Your task to perform on an android device: What's the news in Paraguay? Image 0: 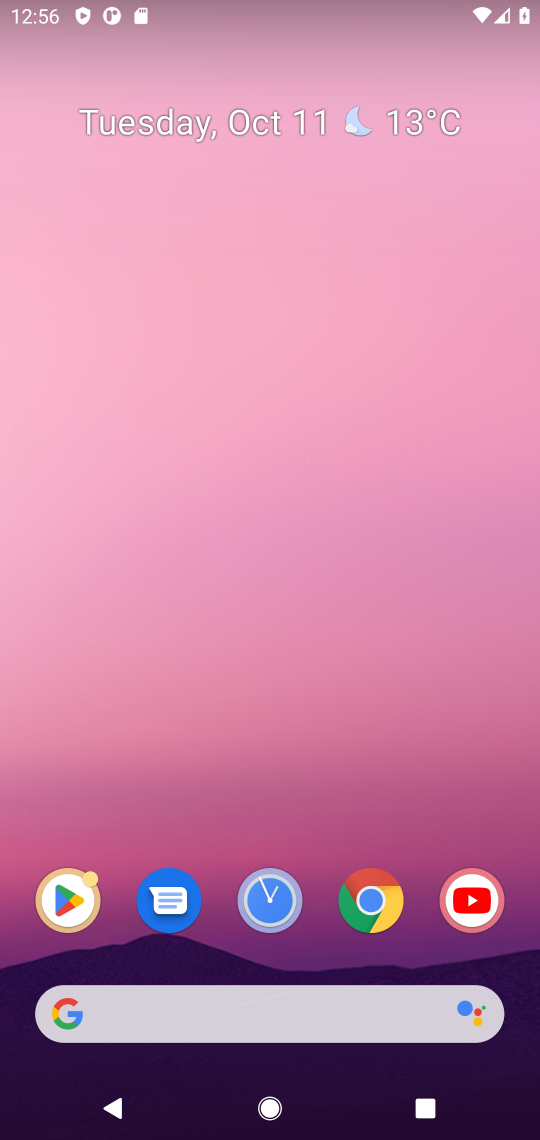
Step 0: click (366, 892)
Your task to perform on an android device: What's the news in Paraguay? Image 1: 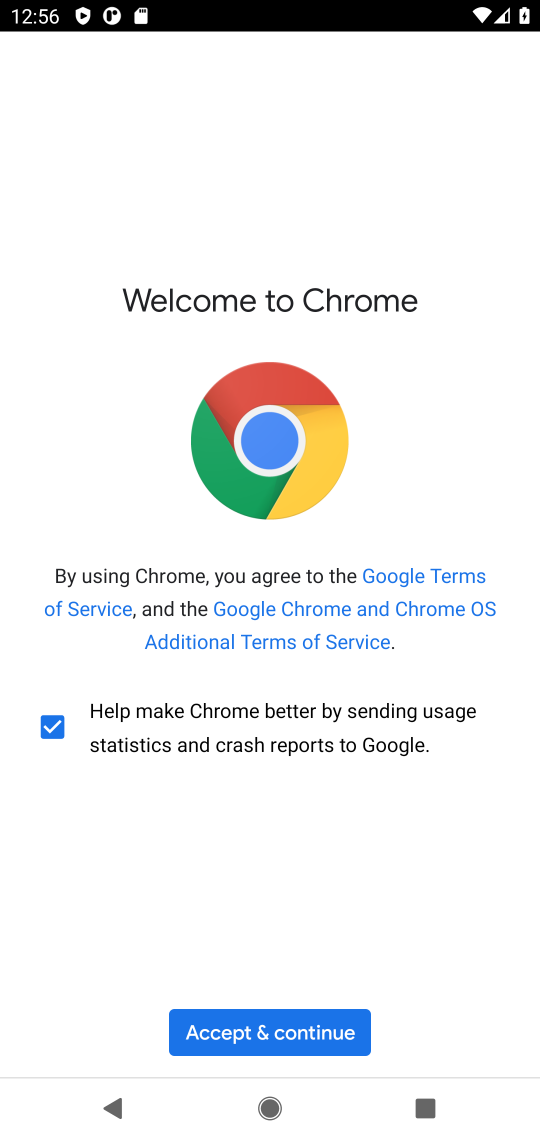
Step 1: click (323, 1029)
Your task to perform on an android device: What's the news in Paraguay? Image 2: 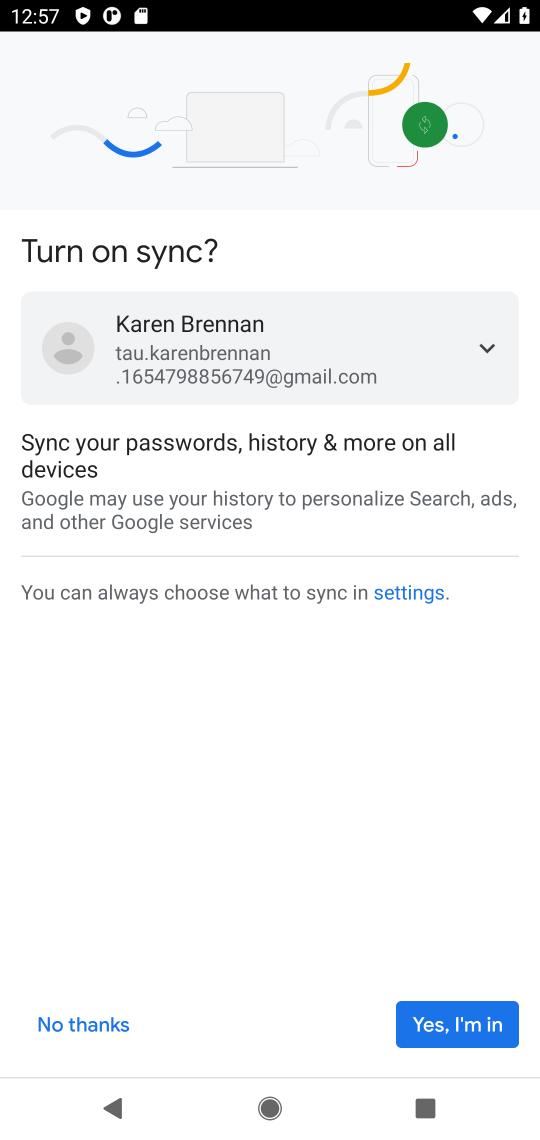
Step 2: click (503, 1026)
Your task to perform on an android device: What's the news in Paraguay? Image 3: 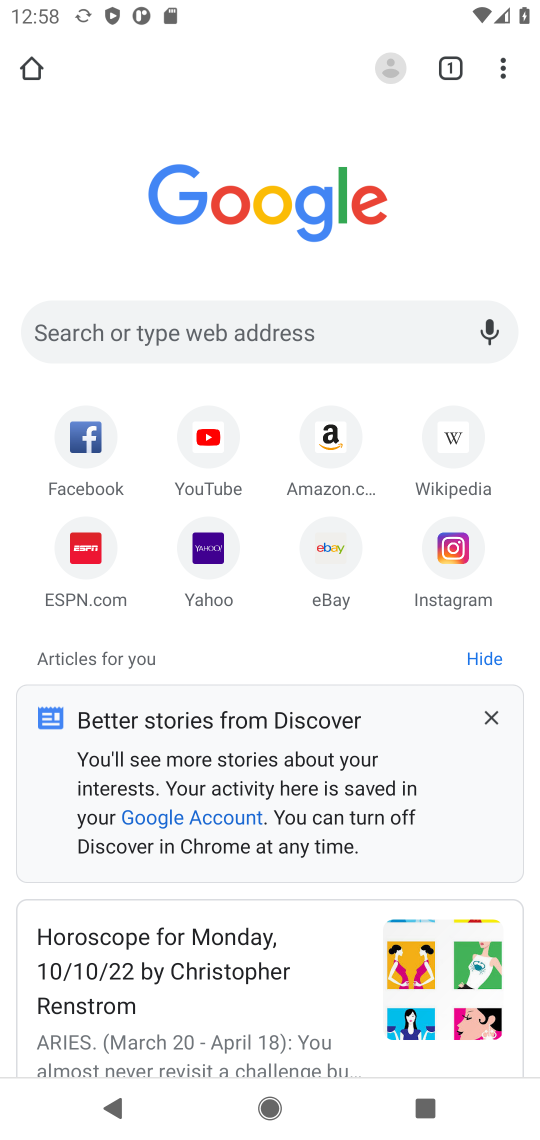
Step 3: click (244, 333)
Your task to perform on an android device: What's the news in Paraguay? Image 4: 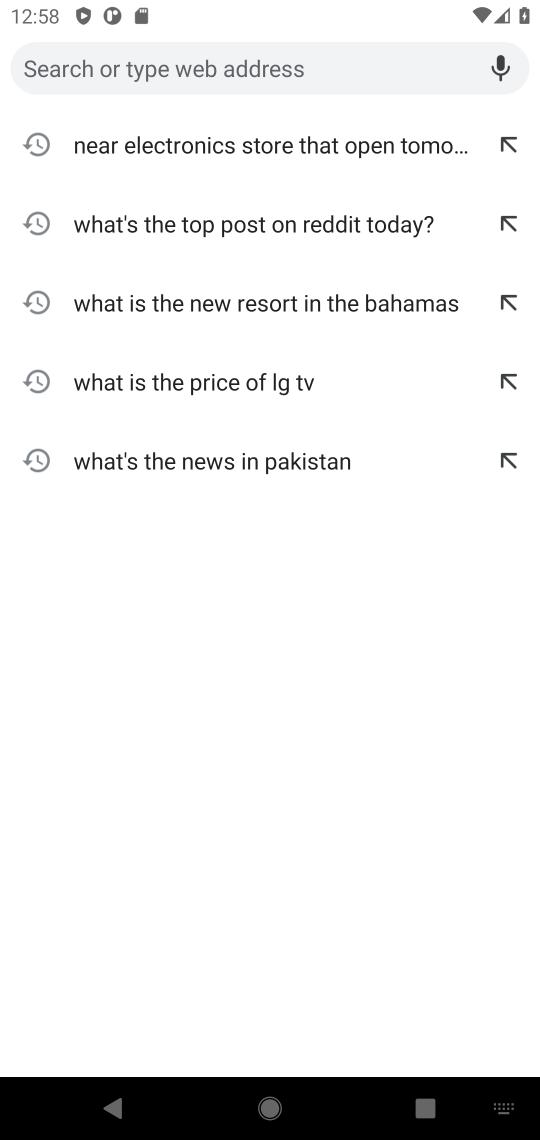
Step 4: click (274, 74)
Your task to perform on an android device: What's the news in Paraguay? Image 5: 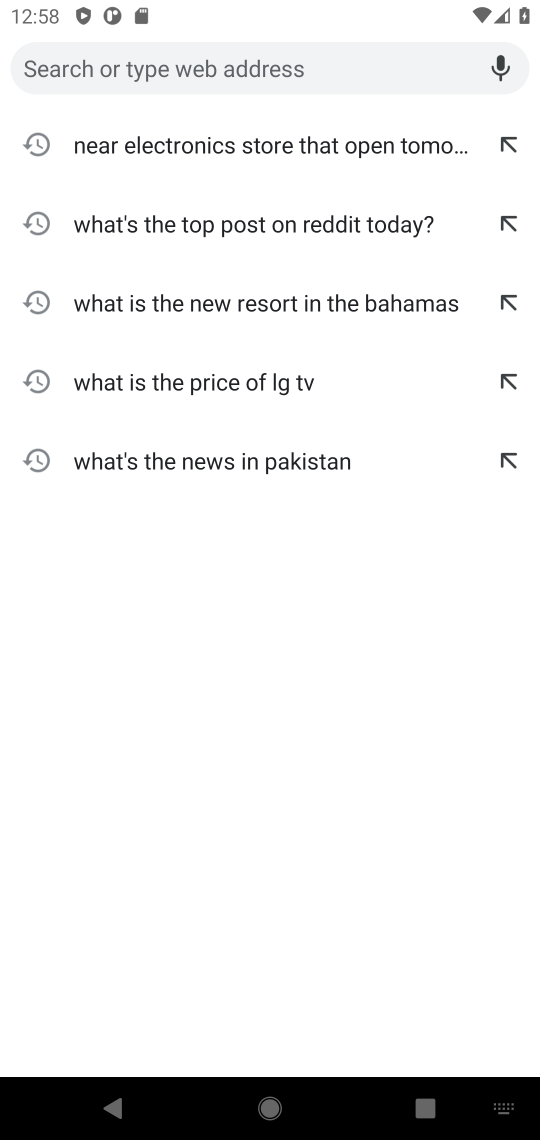
Step 5: type " news in Paraguay"
Your task to perform on an android device: What's the news in Paraguay? Image 6: 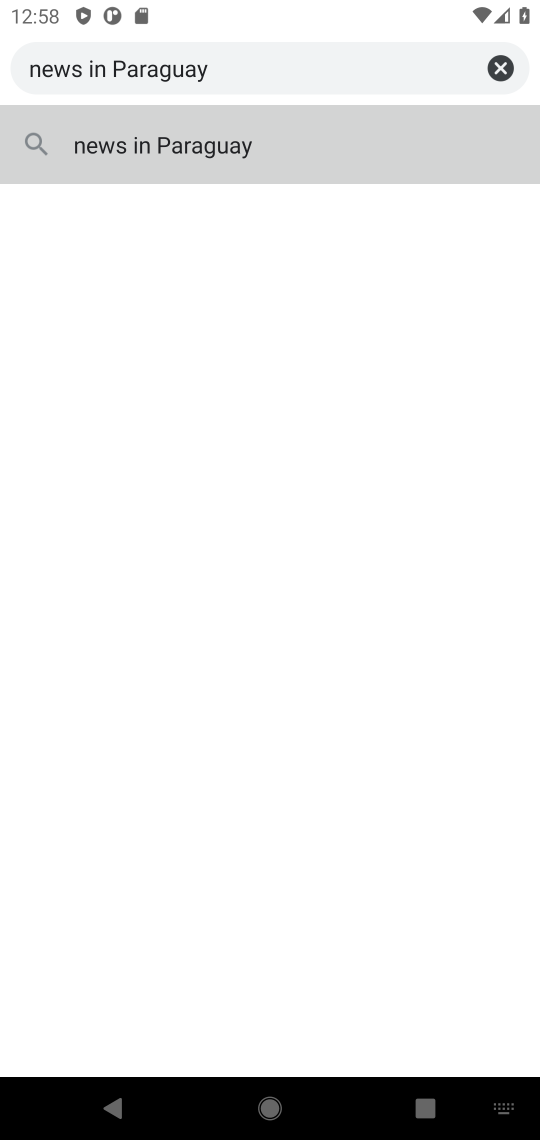
Step 6: click (259, 156)
Your task to perform on an android device: What's the news in Paraguay? Image 7: 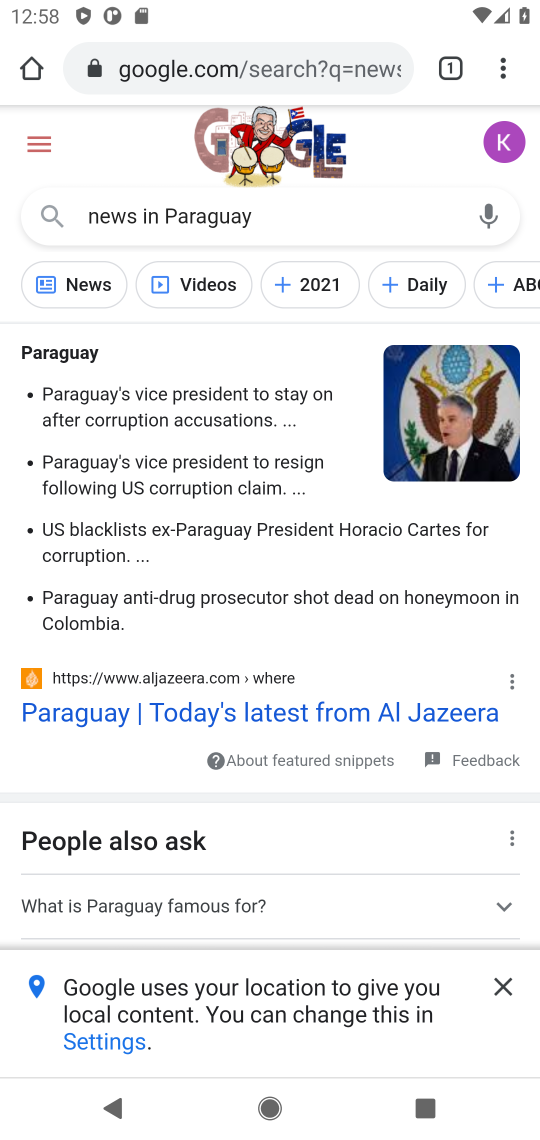
Step 7: click (93, 287)
Your task to perform on an android device: What's the news in Paraguay? Image 8: 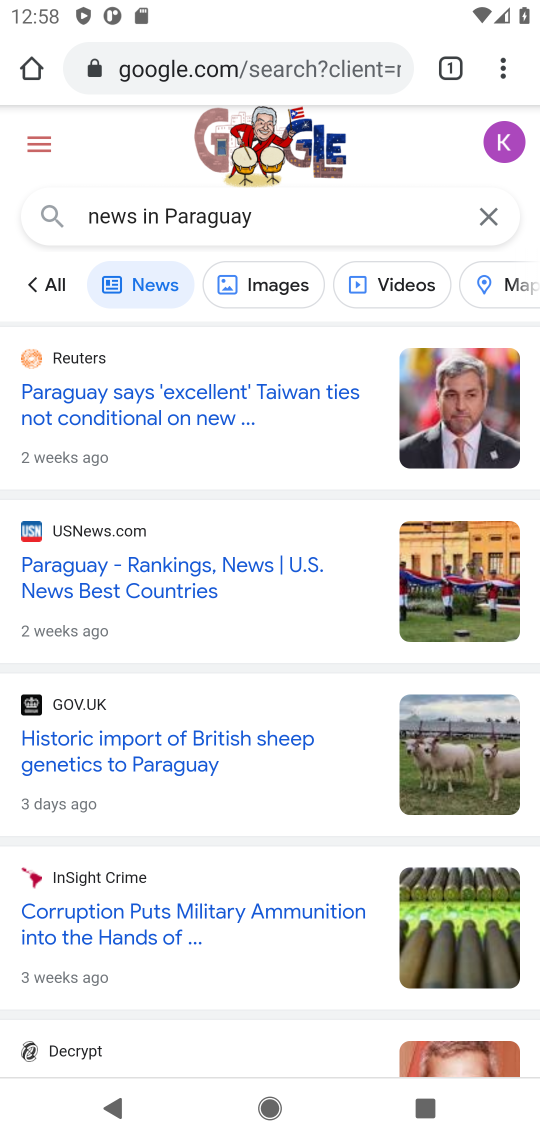
Step 8: task complete